Your task to perform on an android device: manage bookmarks in the chrome app Image 0: 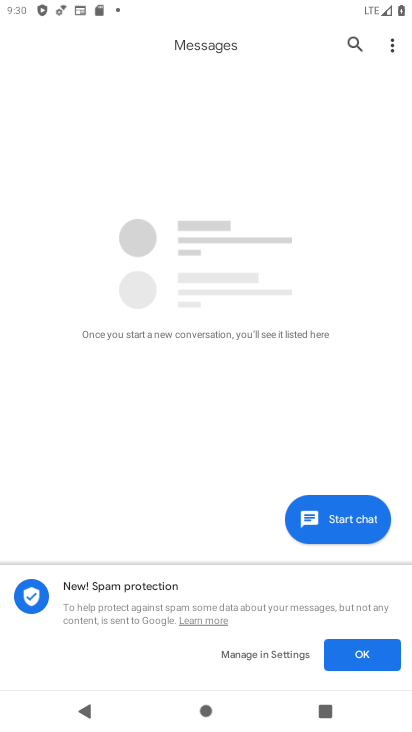
Step 0: press home button
Your task to perform on an android device: manage bookmarks in the chrome app Image 1: 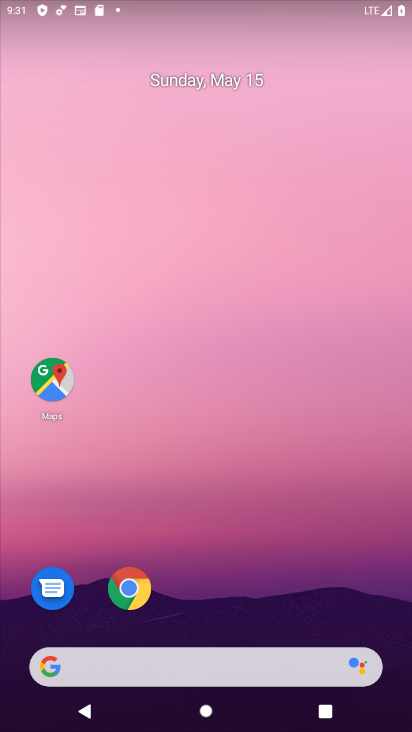
Step 1: click (127, 600)
Your task to perform on an android device: manage bookmarks in the chrome app Image 2: 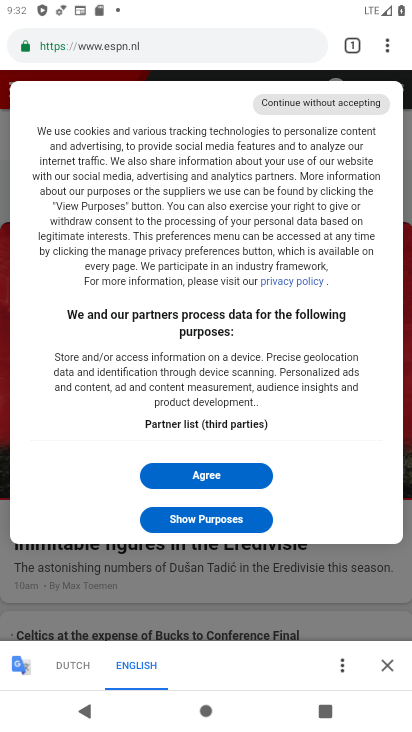
Step 2: click (392, 43)
Your task to perform on an android device: manage bookmarks in the chrome app Image 3: 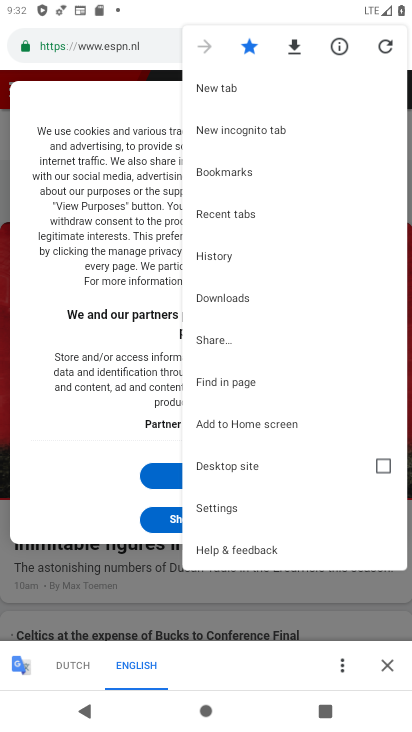
Step 3: click (242, 171)
Your task to perform on an android device: manage bookmarks in the chrome app Image 4: 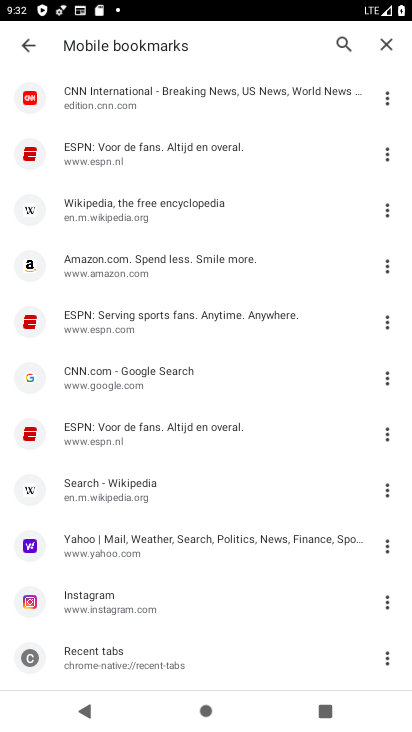
Step 4: click (388, 208)
Your task to perform on an android device: manage bookmarks in the chrome app Image 5: 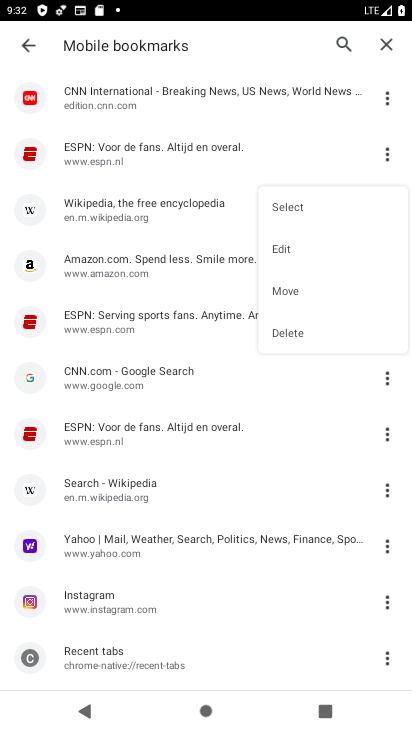
Step 5: click (288, 205)
Your task to perform on an android device: manage bookmarks in the chrome app Image 6: 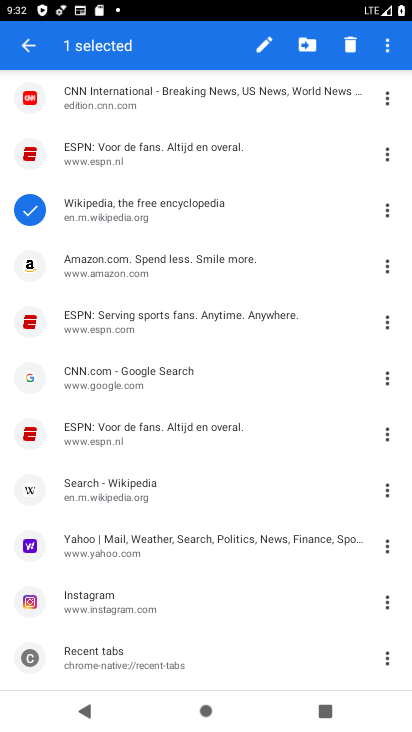
Step 6: click (288, 205)
Your task to perform on an android device: manage bookmarks in the chrome app Image 7: 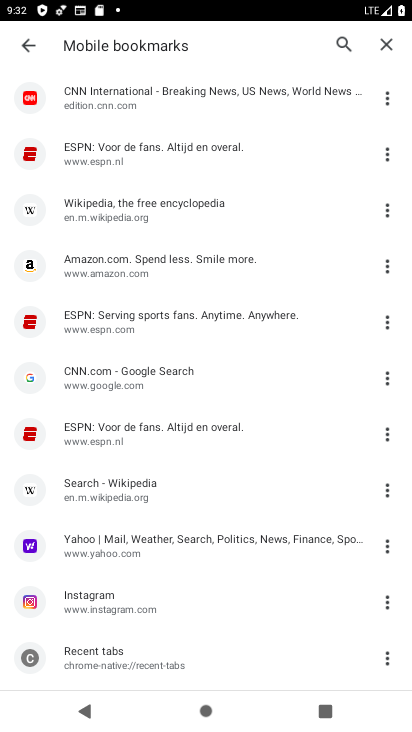
Step 7: click (326, 152)
Your task to perform on an android device: manage bookmarks in the chrome app Image 8: 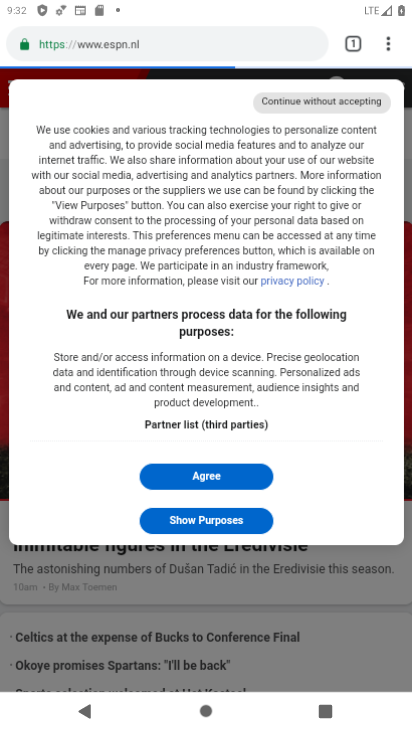
Step 8: click (387, 144)
Your task to perform on an android device: manage bookmarks in the chrome app Image 9: 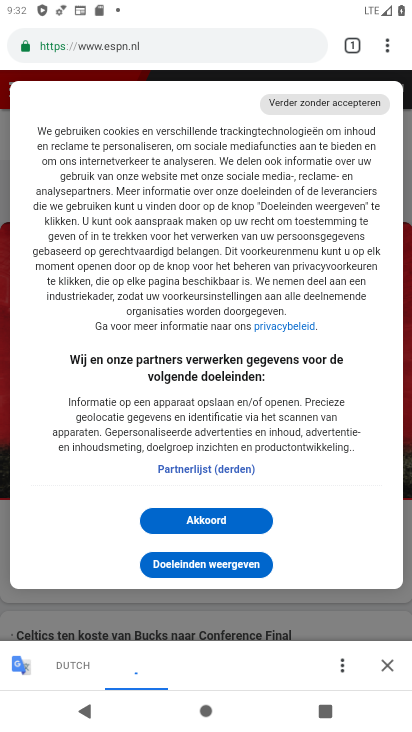
Step 9: task complete